Your task to perform on an android device: delete the emails in spam in the gmail app Image 0: 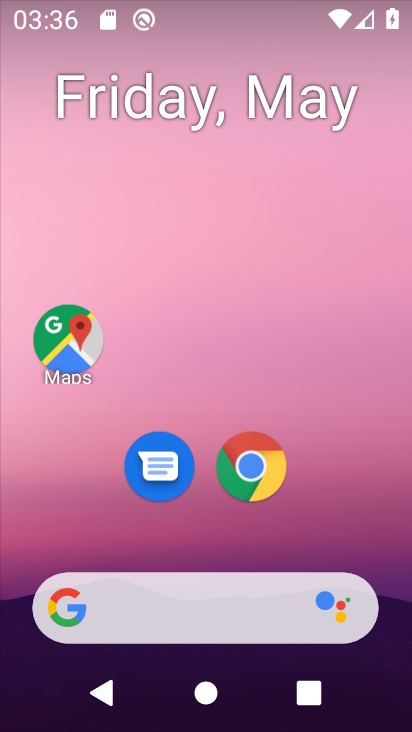
Step 0: click (396, 240)
Your task to perform on an android device: delete the emails in spam in the gmail app Image 1: 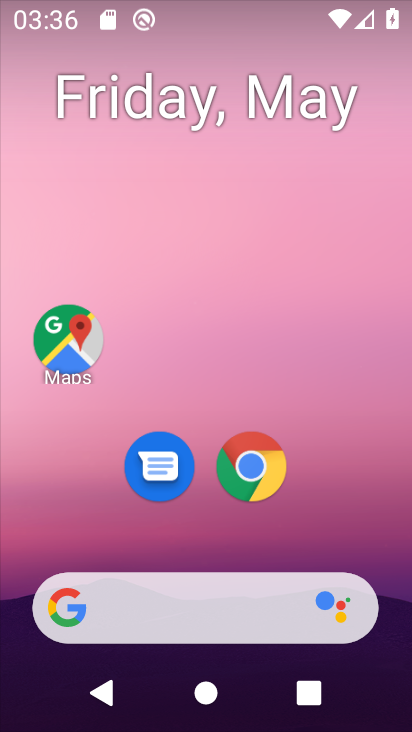
Step 1: drag from (382, 565) to (363, 359)
Your task to perform on an android device: delete the emails in spam in the gmail app Image 2: 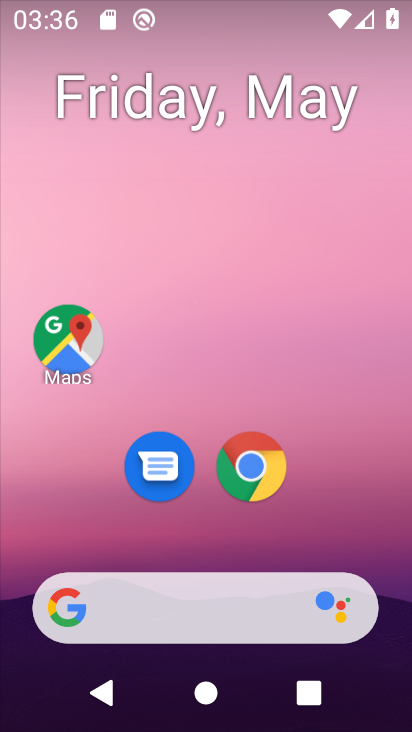
Step 2: click (400, 132)
Your task to perform on an android device: delete the emails in spam in the gmail app Image 3: 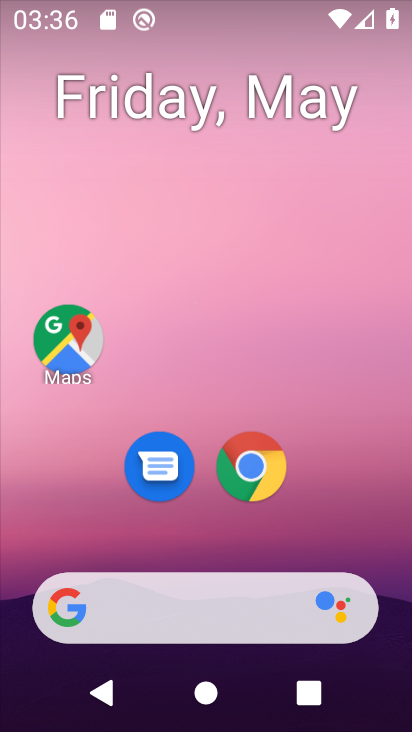
Step 3: drag from (387, 646) to (378, 222)
Your task to perform on an android device: delete the emails in spam in the gmail app Image 4: 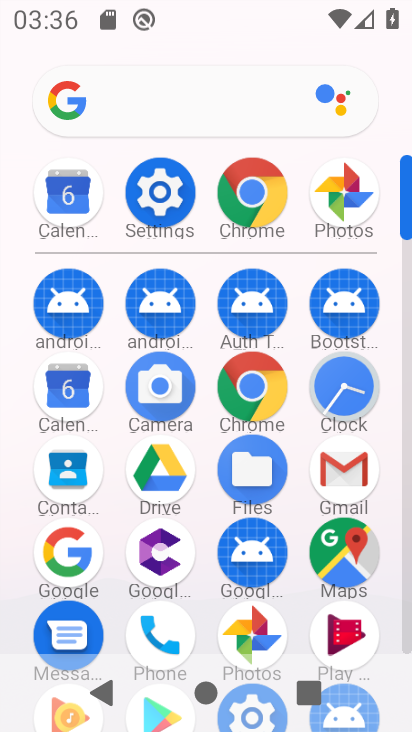
Step 4: click (357, 485)
Your task to perform on an android device: delete the emails in spam in the gmail app Image 5: 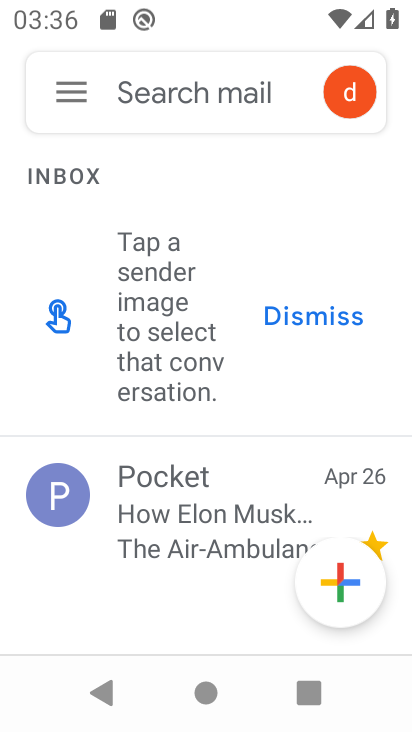
Step 5: click (75, 87)
Your task to perform on an android device: delete the emails in spam in the gmail app Image 6: 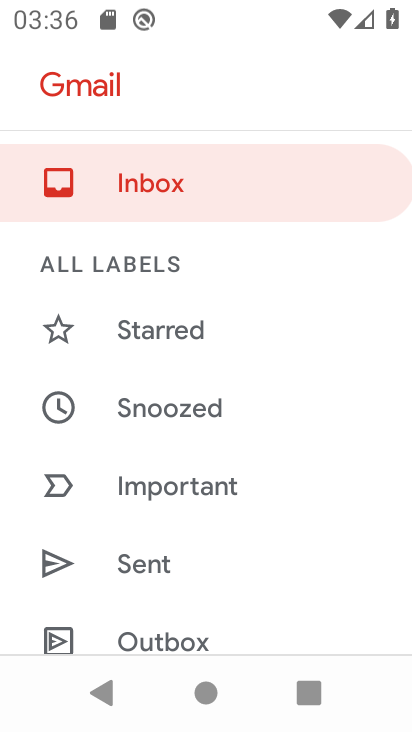
Step 6: click (299, 329)
Your task to perform on an android device: delete the emails in spam in the gmail app Image 7: 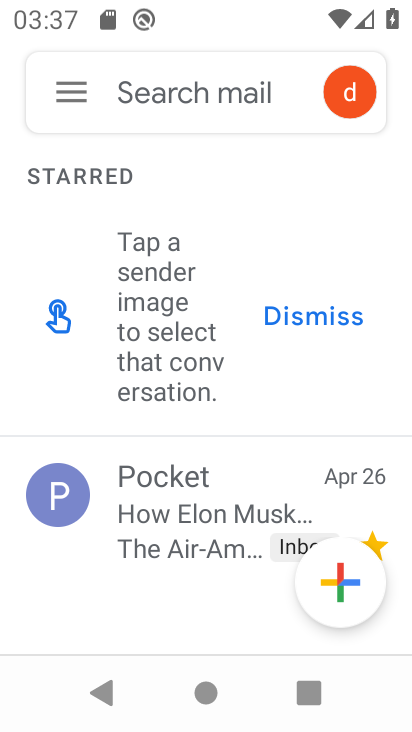
Step 7: click (73, 86)
Your task to perform on an android device: delete the emails in spam in the gmail app Image 8: 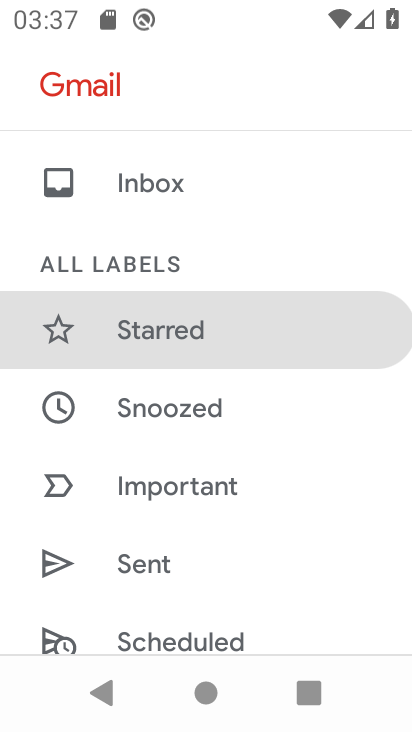
Step 8: click (135, 179)
Your task to perform on an android device: delete the emails in spam in the gmail app Image 9: 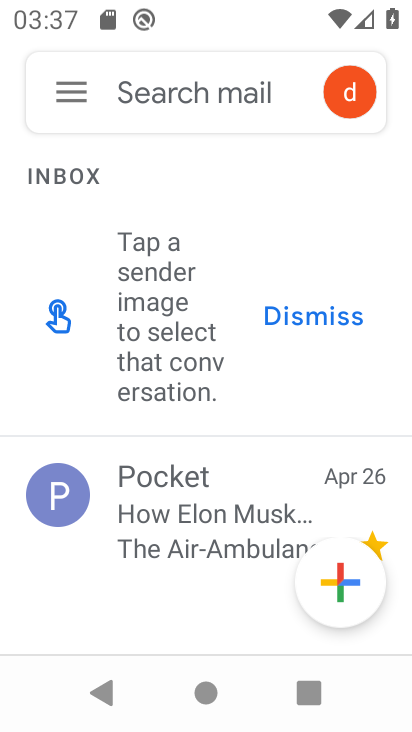
Step 9: drag from (193, 543) to (203, 263)
Your task to perform on an android device: delete the emails in spam in the gmail app Image 10: 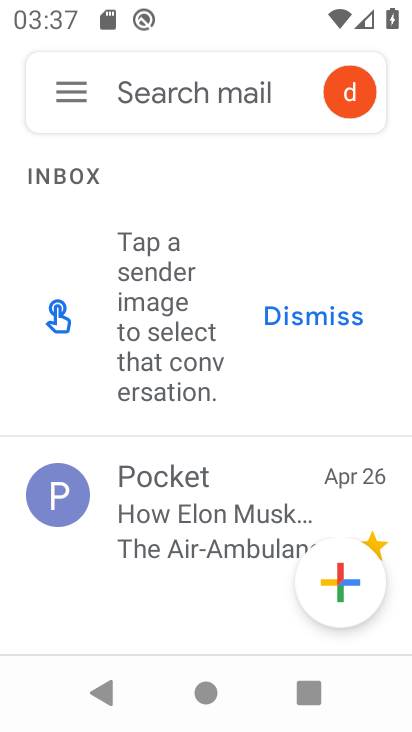
Step 10: drag from (203, 381) to (203, 271)
Your task to perform on an android device: delete the emails in spam in the gmail app Image 11: 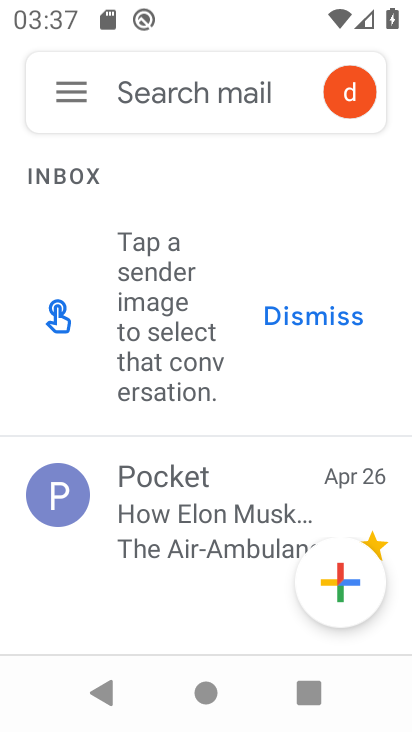
Step 11: drag from (198, 549) to (226, 242)
Your task to perform on an android device: delete the emails in spam in the gmail app Image 12: 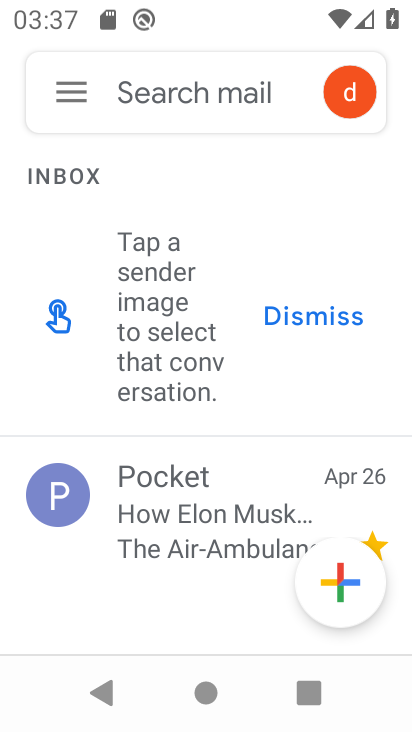
Step 12: click (198, 514)
Your task to perform on an android device: delete the emails in spam in the gmail app Image 13: 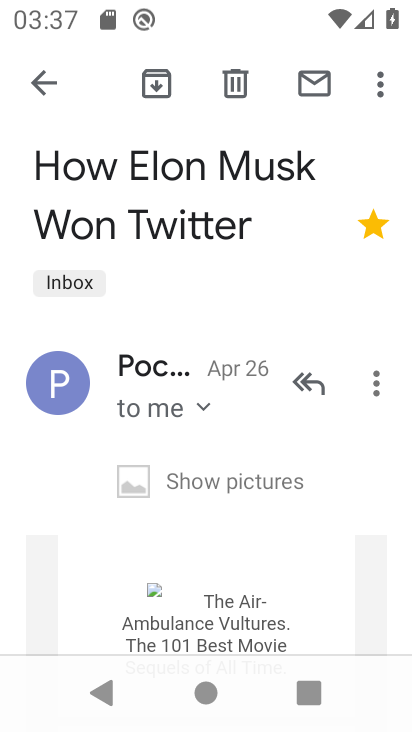
Step 13: click (243, 76)
Your task to perform on an android device: delete the emails in spam in the gmail app Image 14: 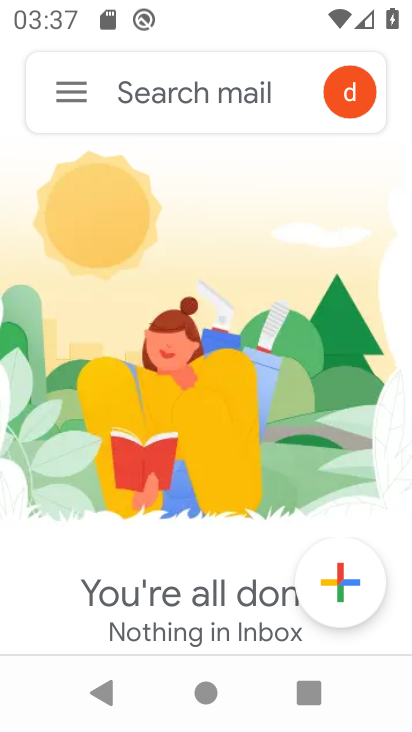
Step 14: task complete